Your task to perform on an android device: refresh tabs in the chrome app Image 0: 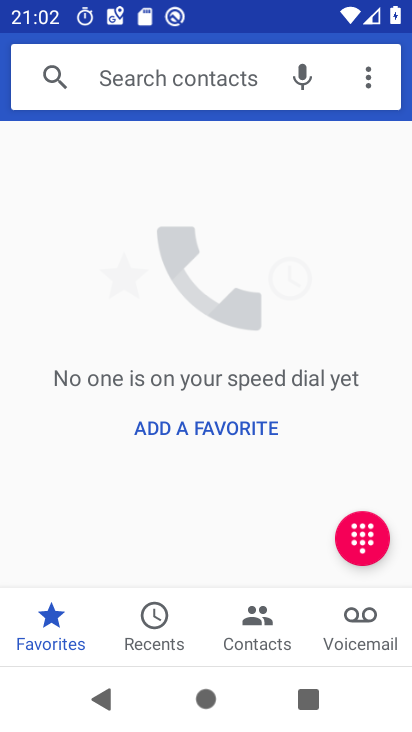
Step 0: press home button
Your task to perform on an android device: refresh tabs in the chrome app Image 1: 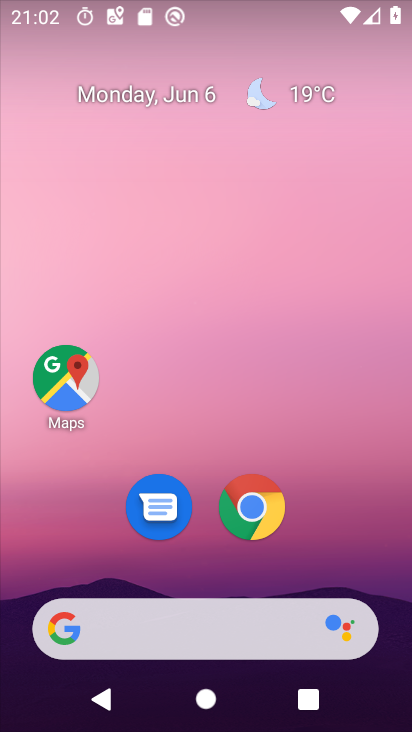
Step 1: drag from (301, 544) to (294, 50)
Your task to perform on an android device: refresh tabs in the chrome app Image 2: 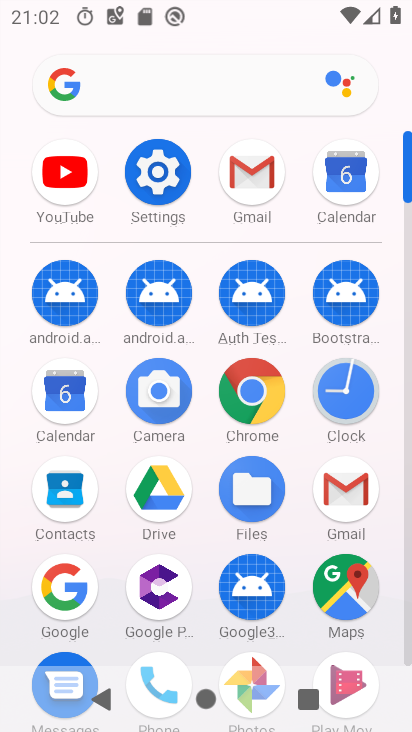
Step 2: click (262, 399)
Your task to perform on an android device: refresh tabs in the chrome app Image 3: 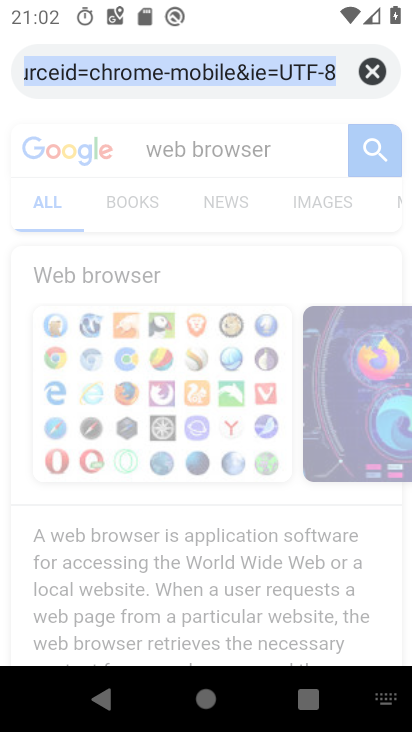
Step 3: click (292, 217)
Your task to perform on an android device: refresh tabs in the chrome app Image 4: 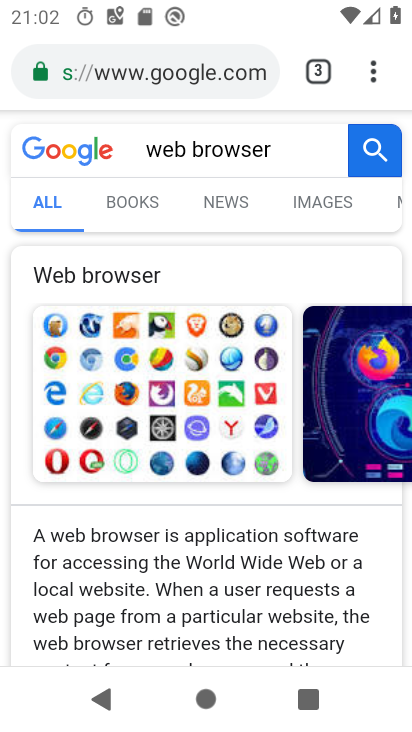
Step 4: click (378, 64)
Your task to perform on an android device: refresh tabs in the chrome app Image 5: 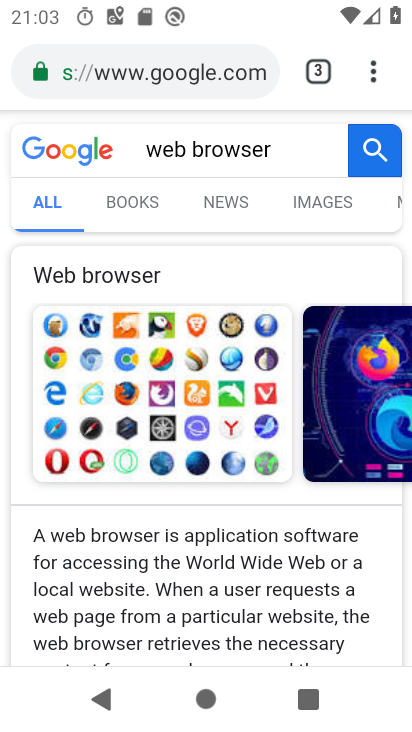
Step 5: task complete